Your task to perform on an android device: Show me recent news Image 0: 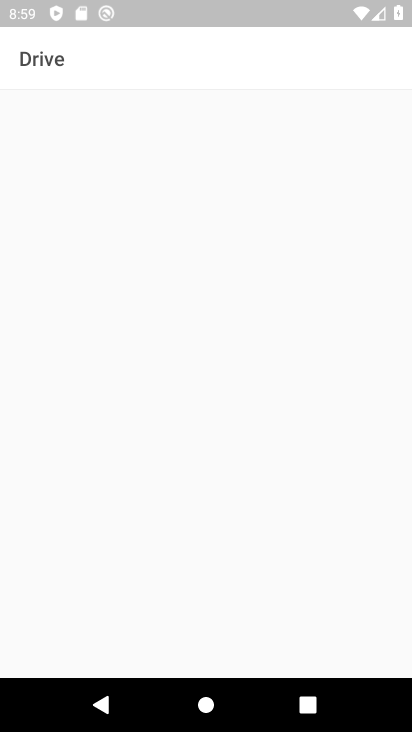
Step 0: press home button
Your task to perform on an android device: Show me recent news Image 1: 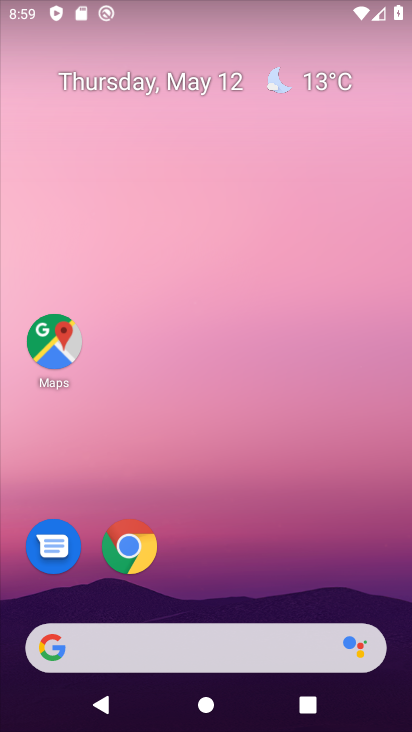
Step 1: drag from (260, 550) to (306, 37)
Your task to perform on an android device: Show me recent news Image 2: 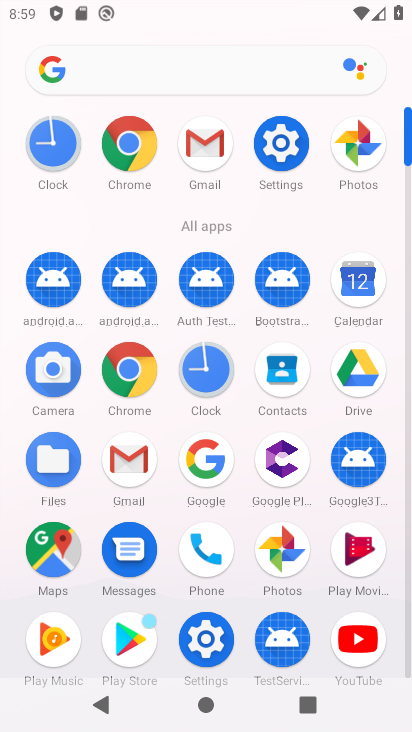
Step 2: click (136, 140)
Your task to perform on an android device: Show me recent news Image 3: 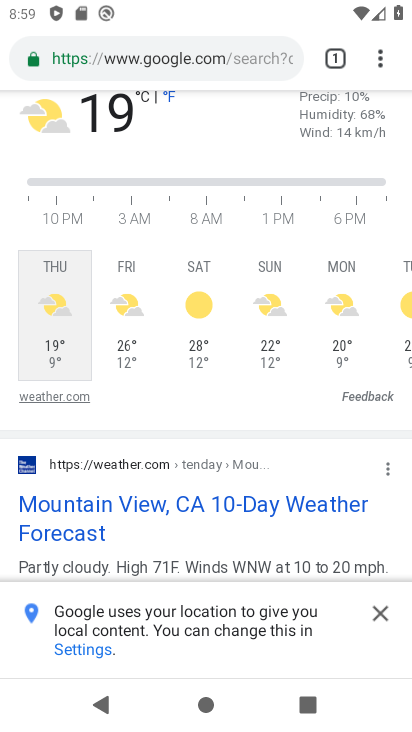
Step 3: click (205, 62)
Your task to perform on an android device: Show me recent news Image 4: 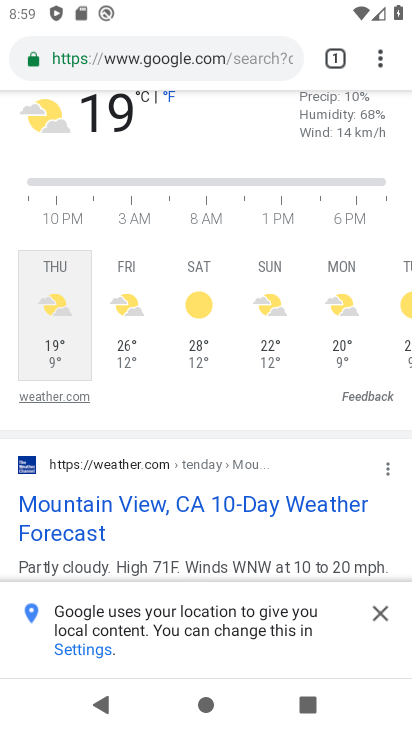
Step 4: click (205, 62)
Your task to perform on an android device: Show me recent news Image 5: 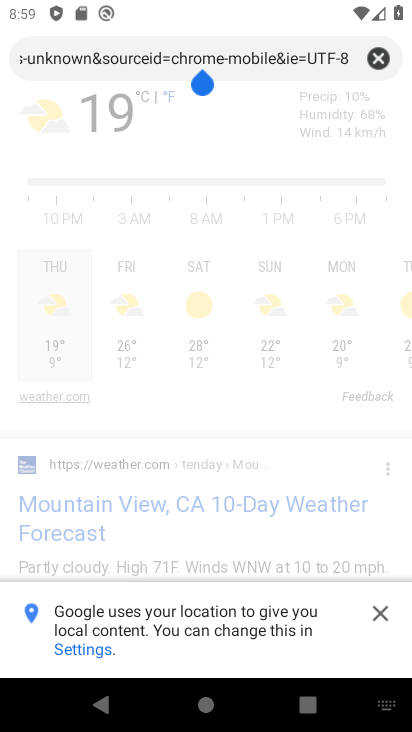
Step 5: click (323, 53)
Your task to perform on an android device: Show me recent news Image 6: 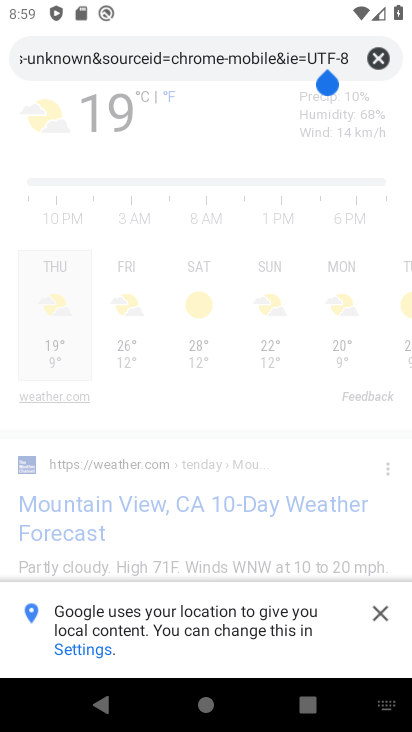
Step 6: click (379, 56)
Your task to perform on an android device: Show me recent news Image 7: 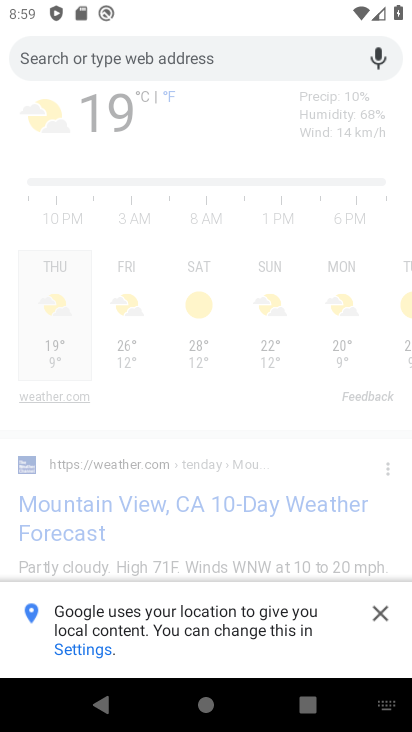
Step 7: click (379, 56)
Your task to perform on an android device: Show me recent news Image 8: 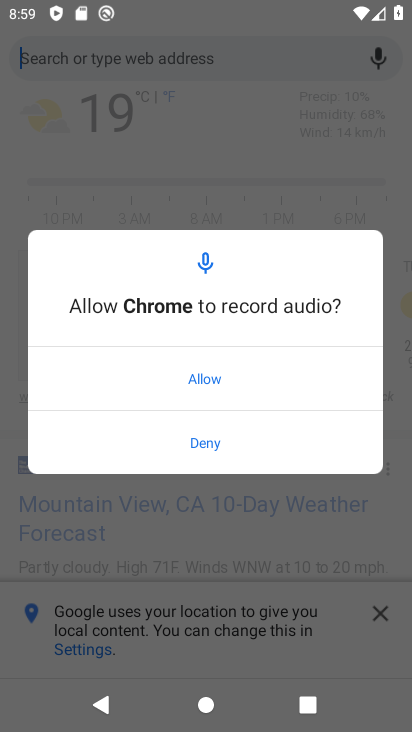
Step 8: click (197, 378)
Your task to perform on an android device: Show me recent news Image 9: 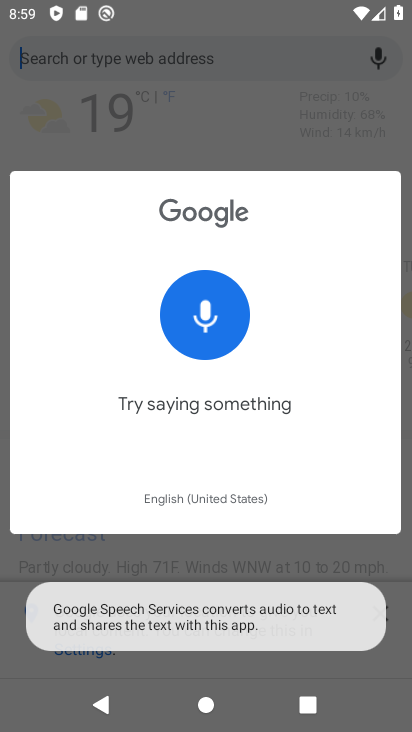
Step 9: click (233, 42)
Your task to perform on an android device: Show me recent news Image 10: 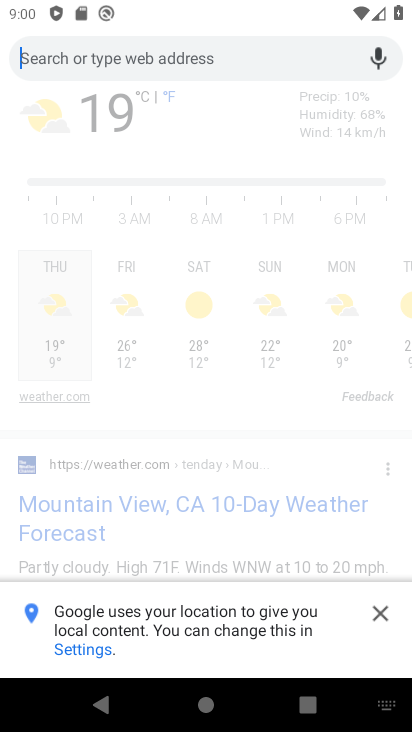
Step 10: type "What's the weather today?"
Your task to perform on an android device: Show me recent news Image 11: 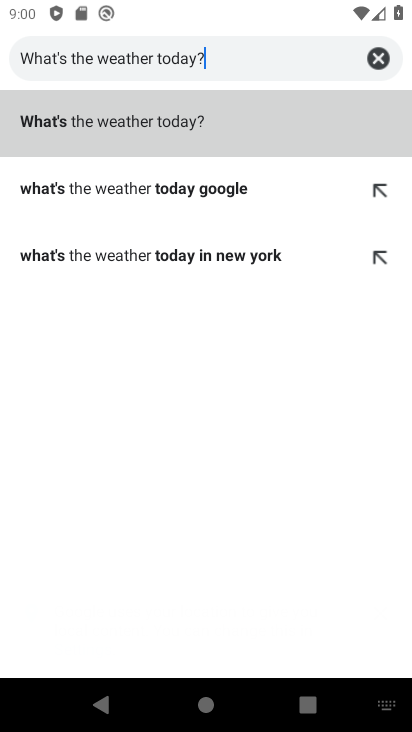
Step 11: click (157, 122)
Your task to perform on an android device: Show me recent news Image 12: 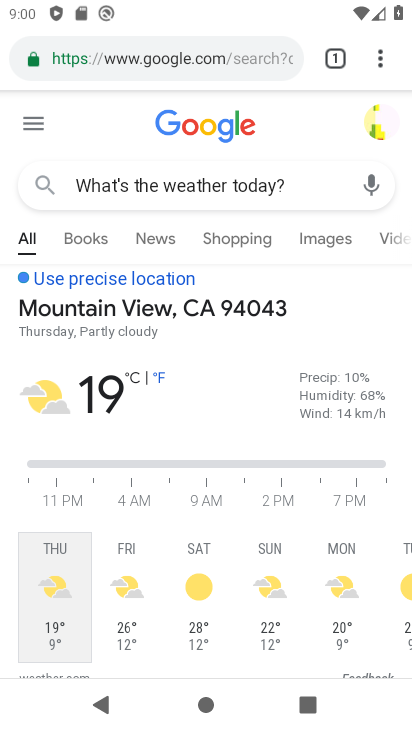
Step 12: click (321, 185)
Your task to perform on an android device: Show me recent news Image 13: 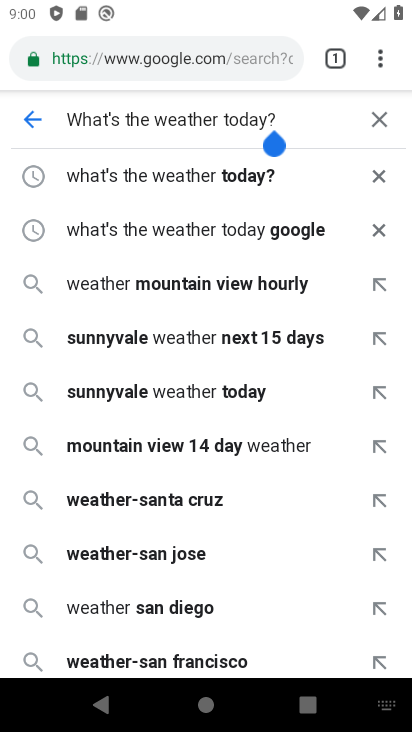
Step 13: click (381, 115)
Your task to perform on an android device: Show me recent news Image 14: 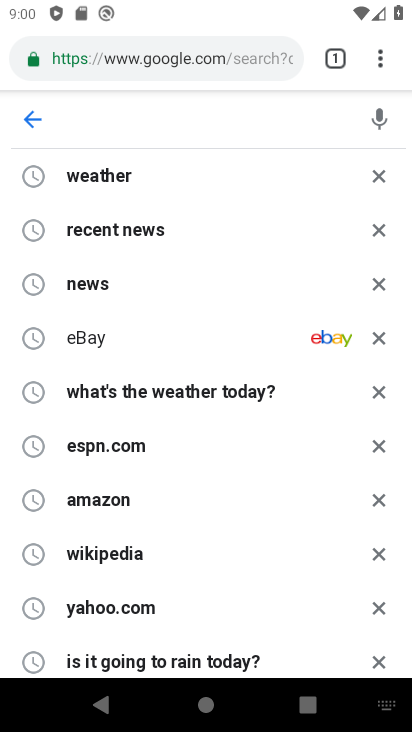
Step 14: type "Show me recent news"
Your task to perform on an android device: Show me recent news Image 15: 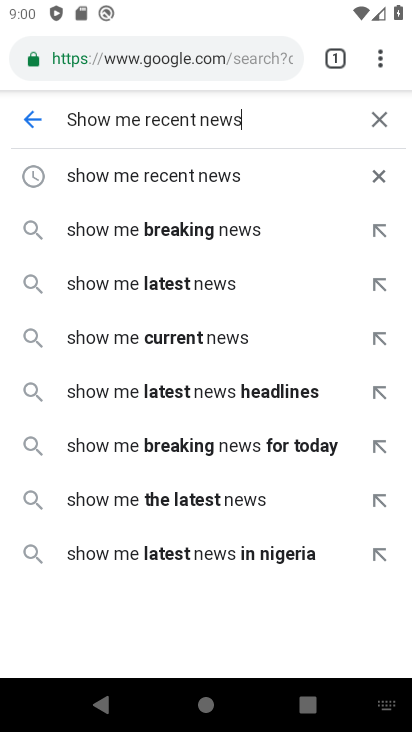
Step 15: click (128, 177)
Your task to perform on an android device: Show me recent news Image 16: 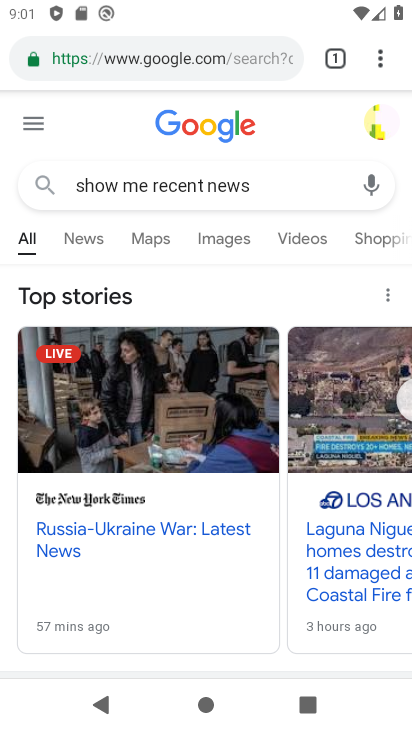
Step 16: click (74, 231)
Your task to perform on an android device: Show me recent news Image 17: 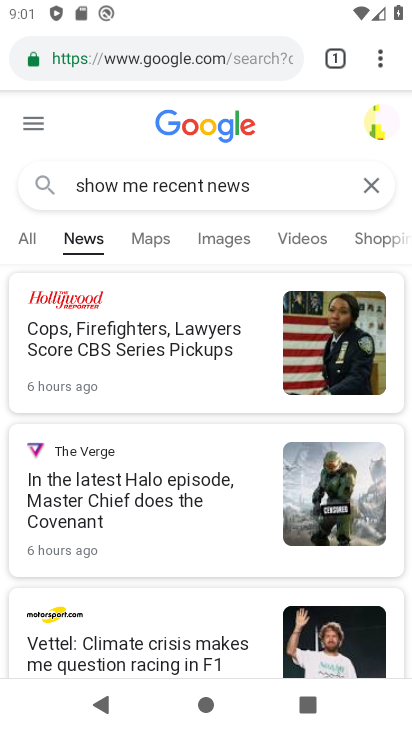
Step 17: task complete